Your task to perform on an android device: Search for razer kraken on bestbuy, select the first entry, and add it to the cart. Image 0: 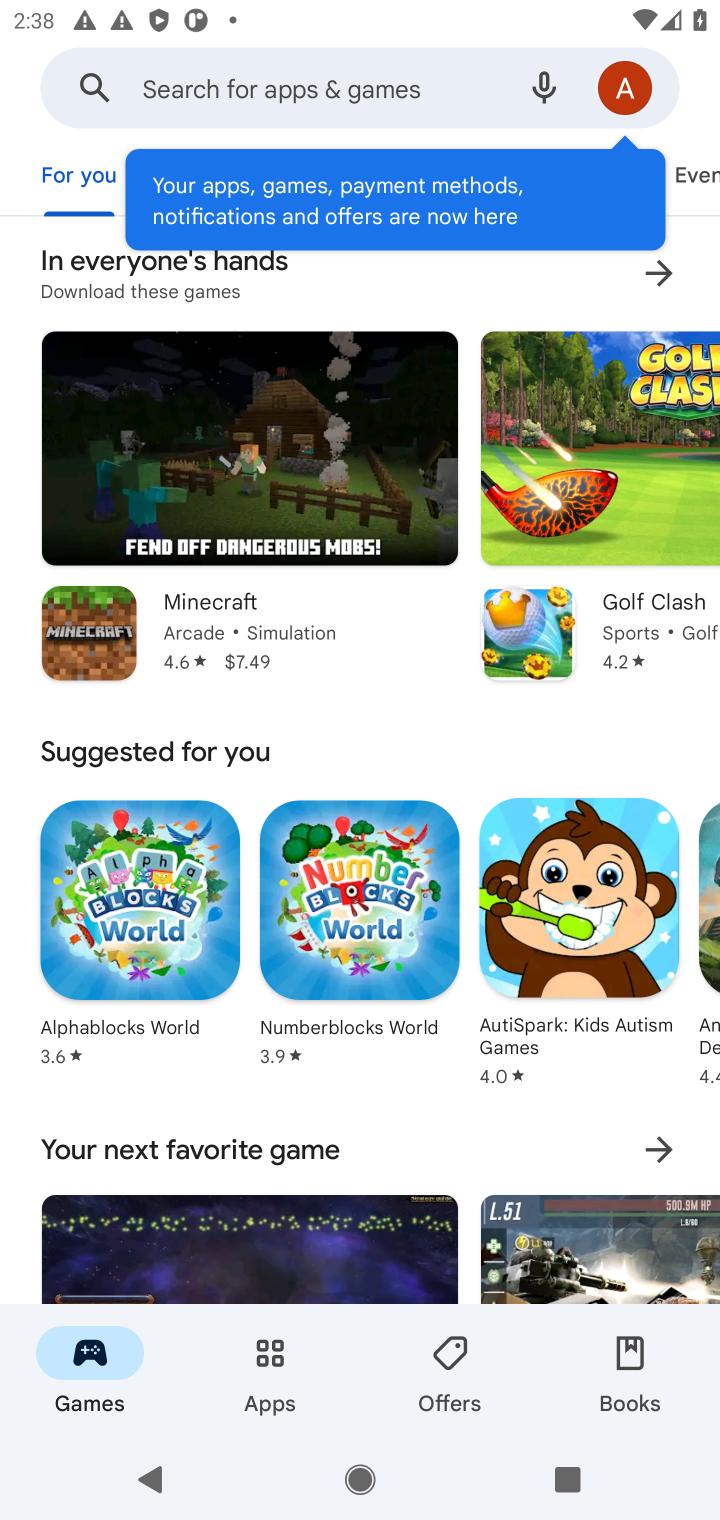
Step 0: press home button
Your task to perform on an android device: Search for razer kraken on bestbuy, select the first entry, and add it to the cart. Image 1: 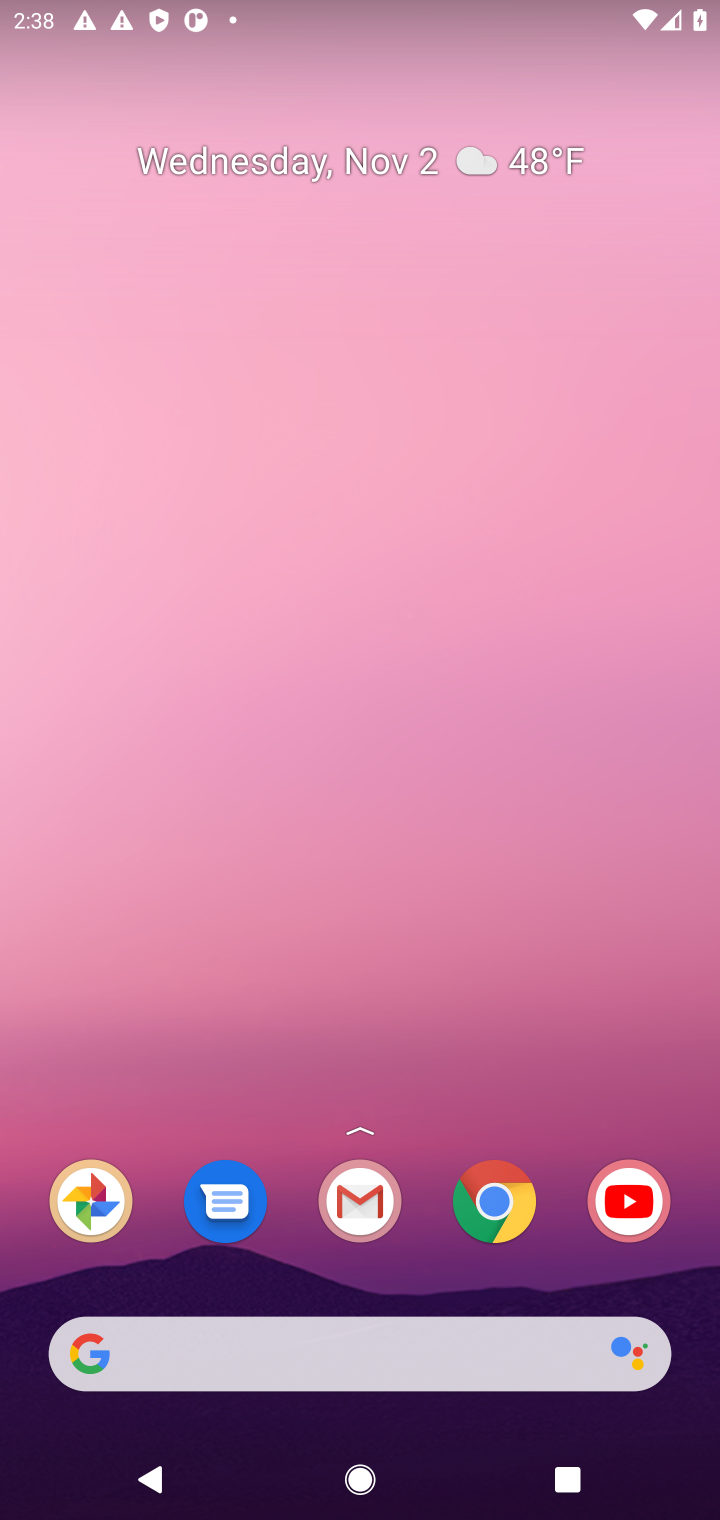
Step 1: click (507, 1191)
Your task to perform on an android device: Search for razer kraken on bestbuy, select the first entry, and add it to the cart. Image 2: 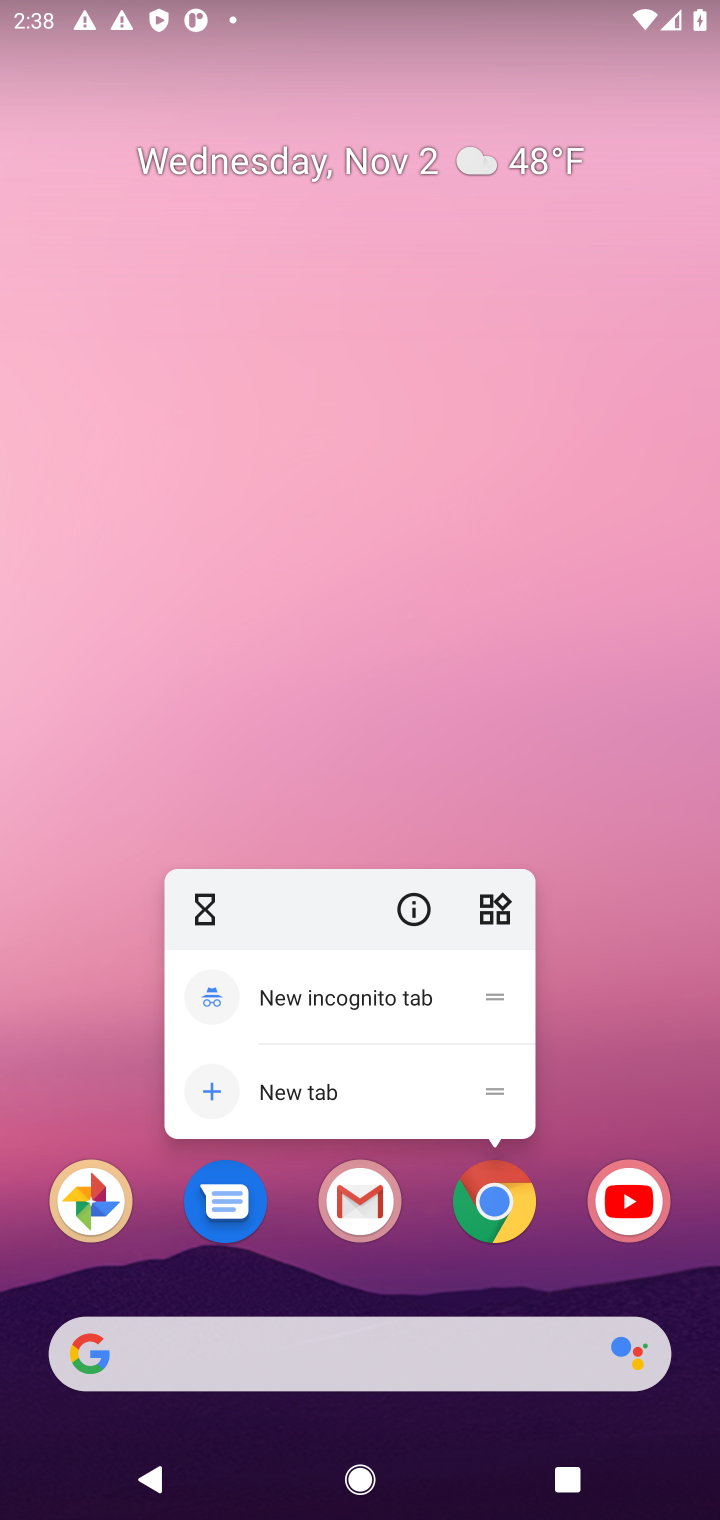
Step 2: click (509, 1189)
Your task to perform on an android device: Search for razer kraken on bestbuy, select the first entry, and add it to the cart. Image 3: 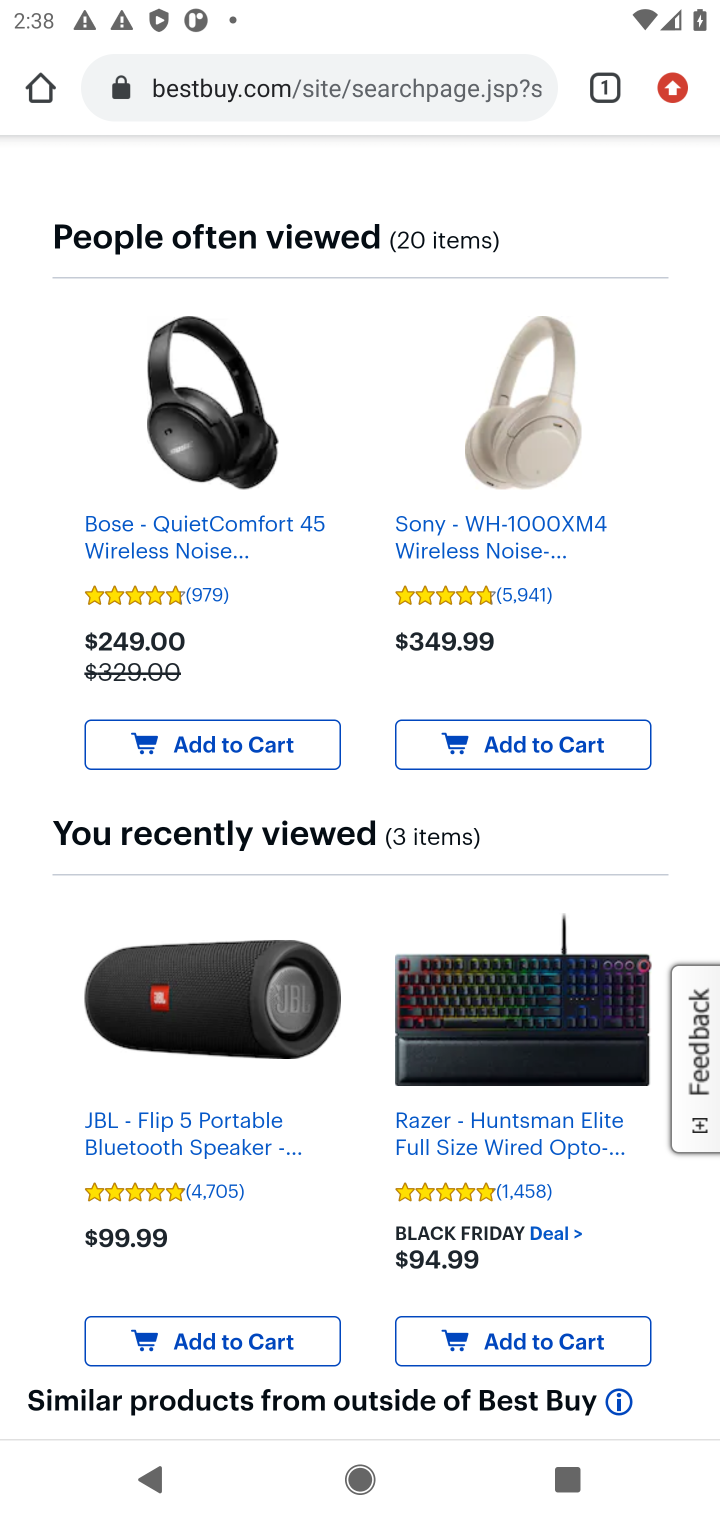
Step 3: click (466, 66)
Your task to perform on an android device: Search for razer kraken on bestbuy, select the first entry, and add it to the cart. Image 4: 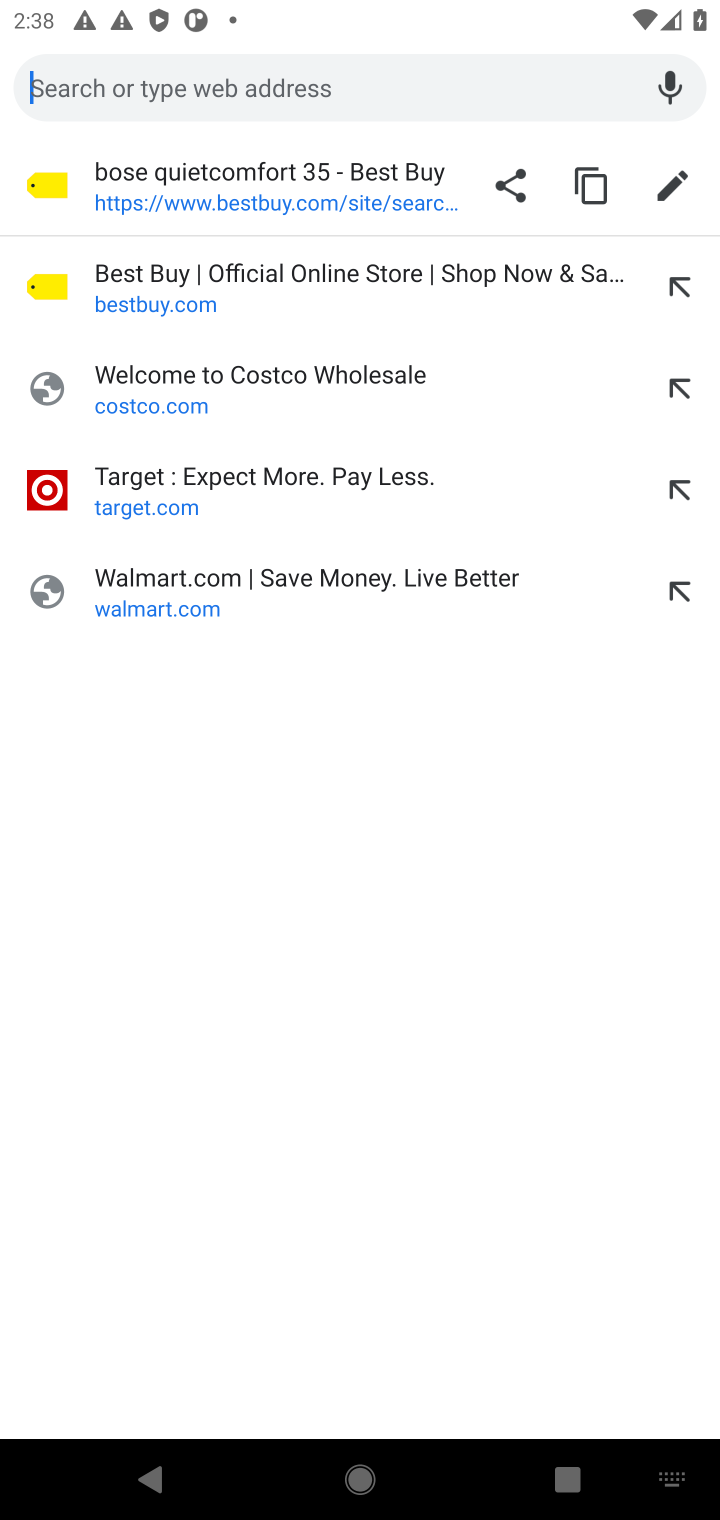
Step 4: click (216, 270)
Your task to perform on an android device: Search for razer kraken on bestbuy, select the first entry, and add it to the cart. Image 5: 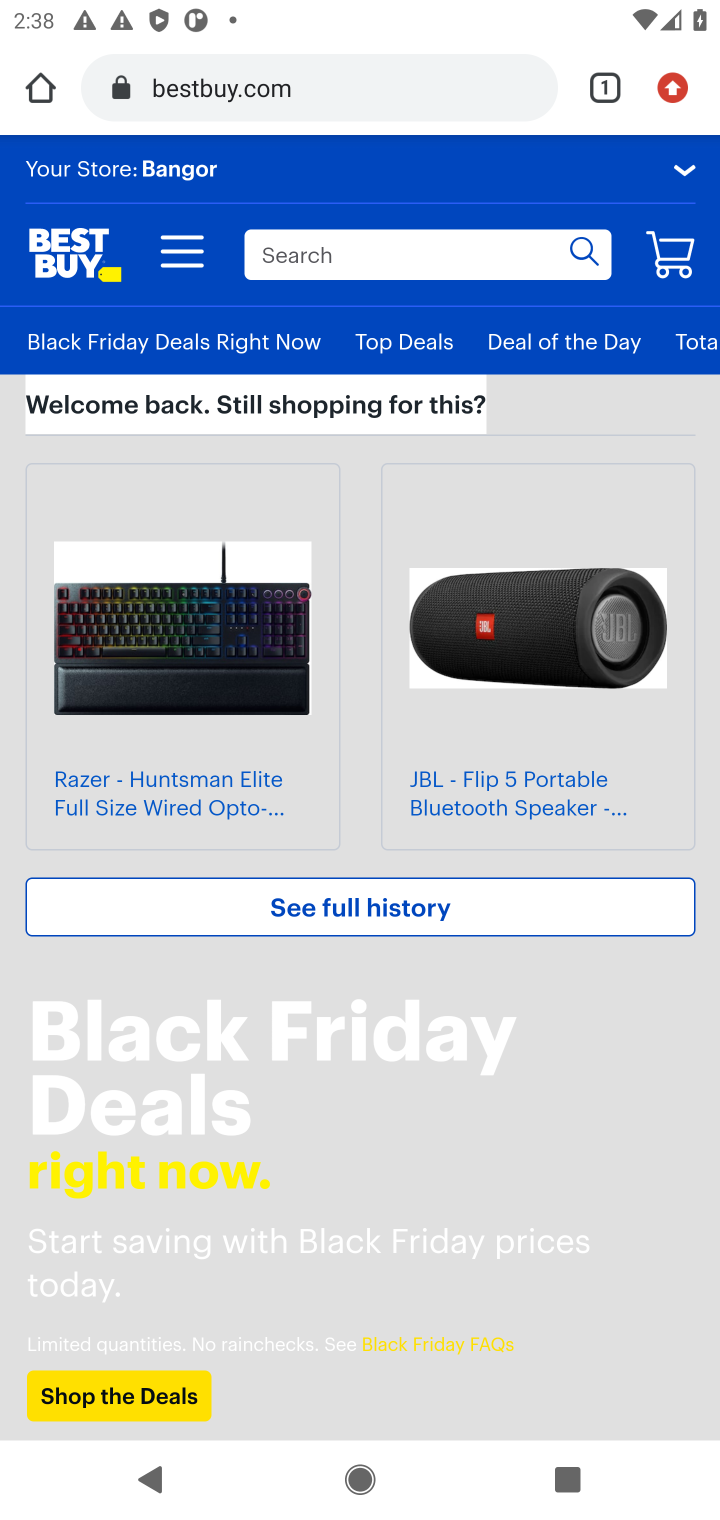
Step 5: click (462, 245)
Your task to perform on an android device: Search for razer kraken on bestbuy, select the first entry, and add it to the cart. Image 6: 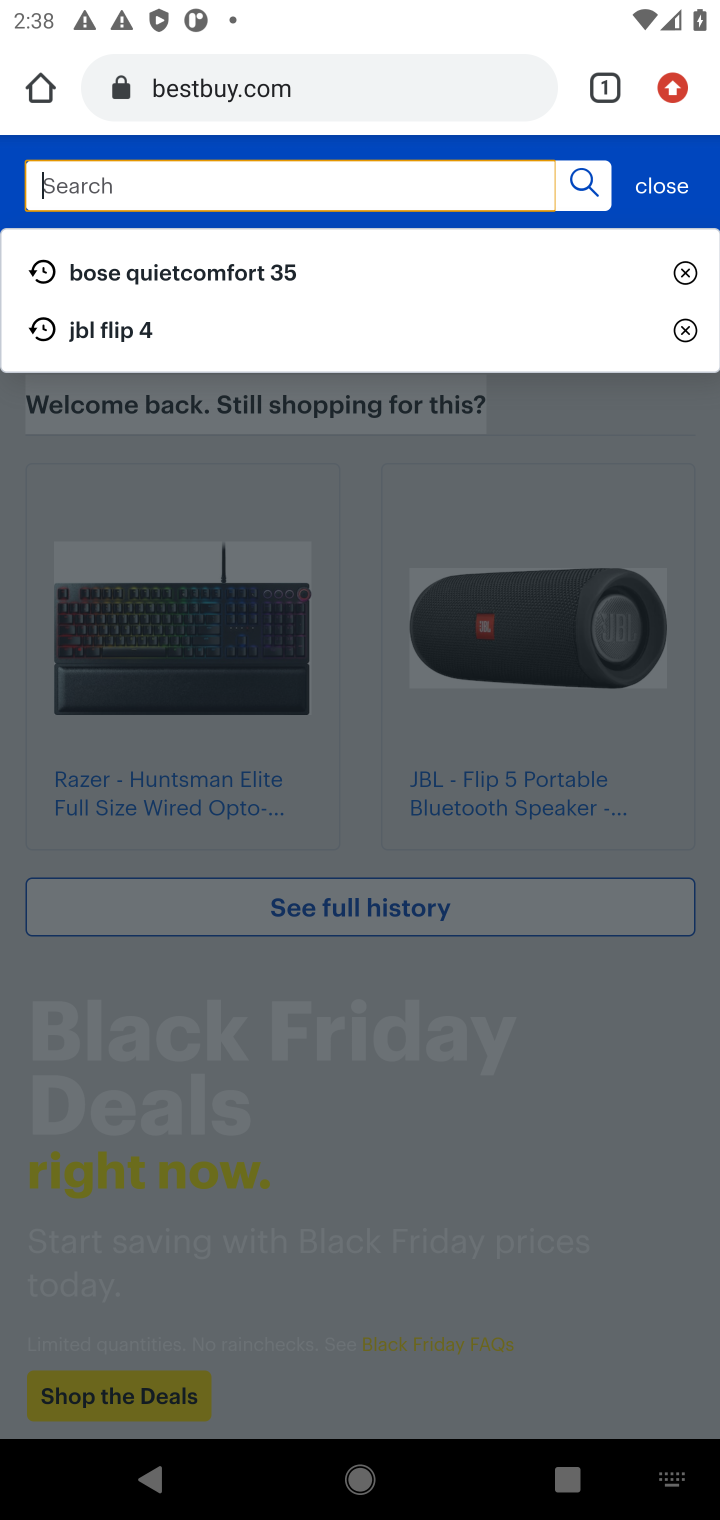
Step 6: type " razer kraken"
Your task to perform on an android device: Search for razer kraken on bestbuy, select the first entry, and add it to the cart. Image 7: 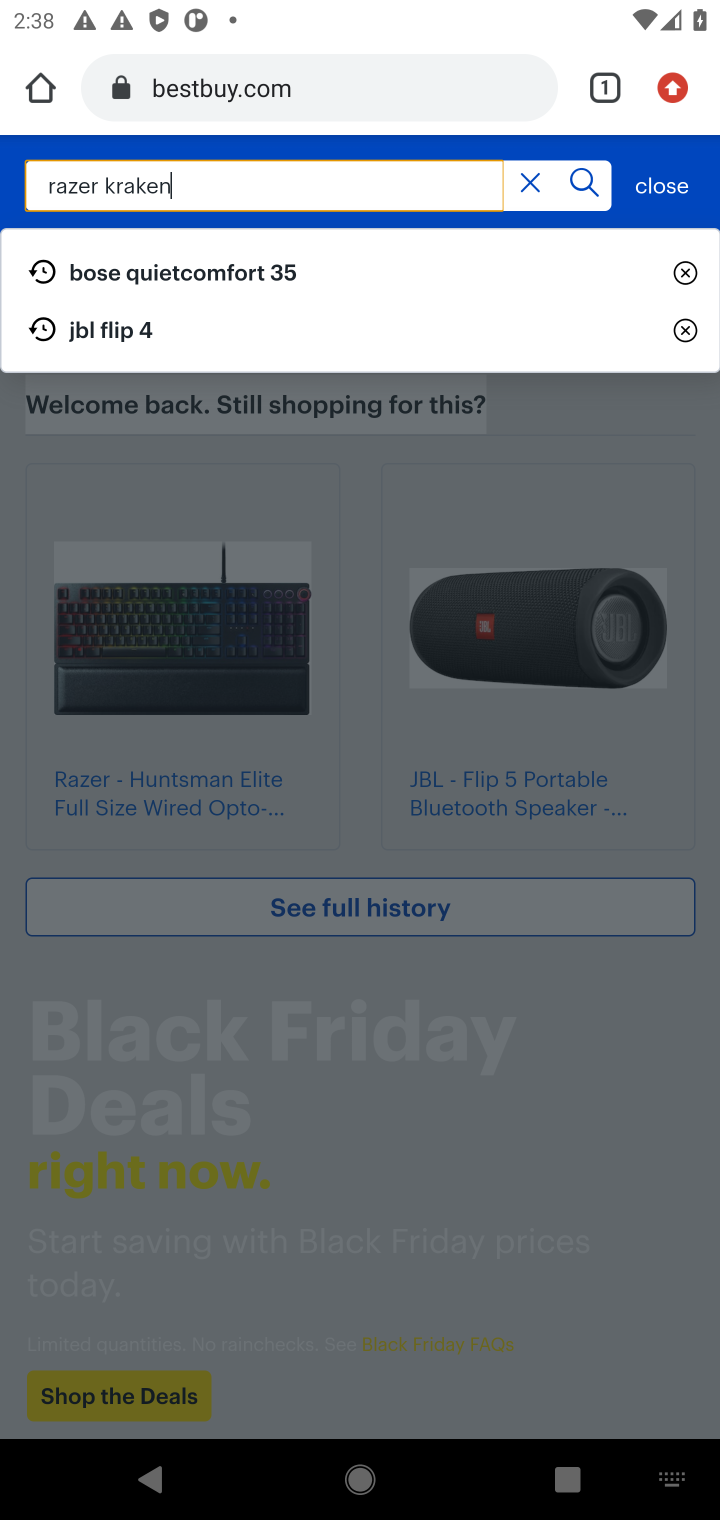
Step 7: press enter
Your task to perform on an android device: Search for razer kraken on bestbuy, select the first entry, and add it to the cart. Image 8: 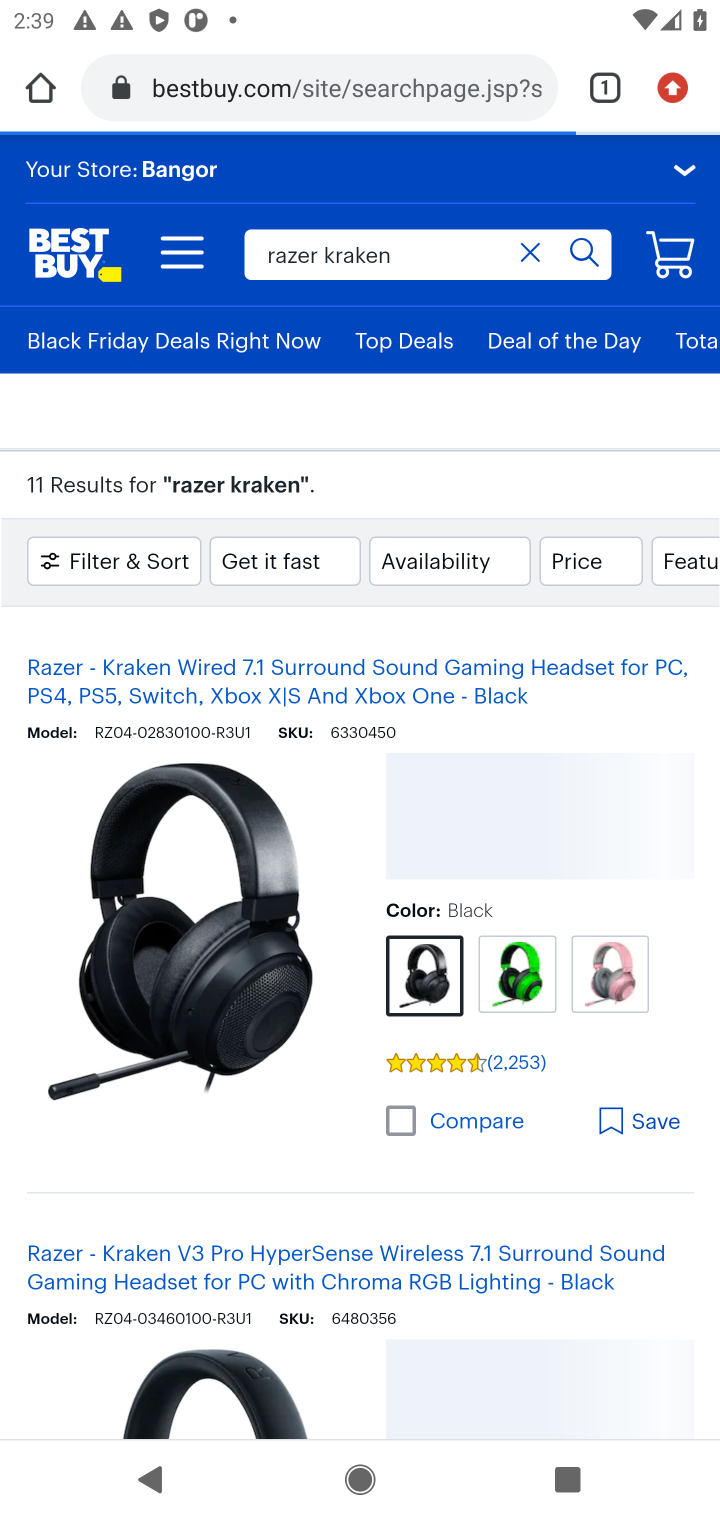
Step 8: click (202, 868)
Your task to perform on an android device: Search for razer kraken on bestbuy, select the first entry, and add it to the cart. Image 9: 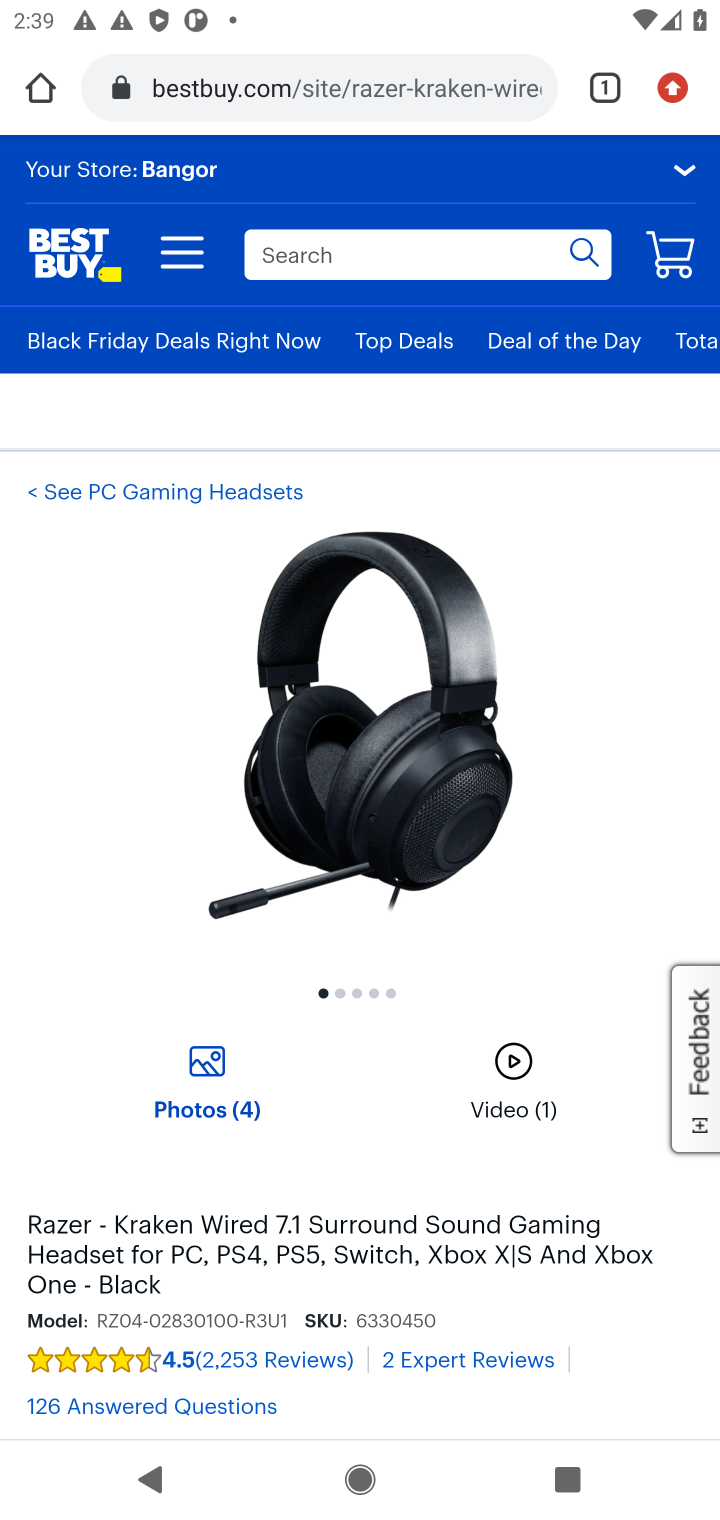
Step 9: drag from (546, 1140) to (569, 818)
Your task to perform on an android device: Search for razer kraken on bestbuy, select the first entry, and add it to the cart. Image 10: 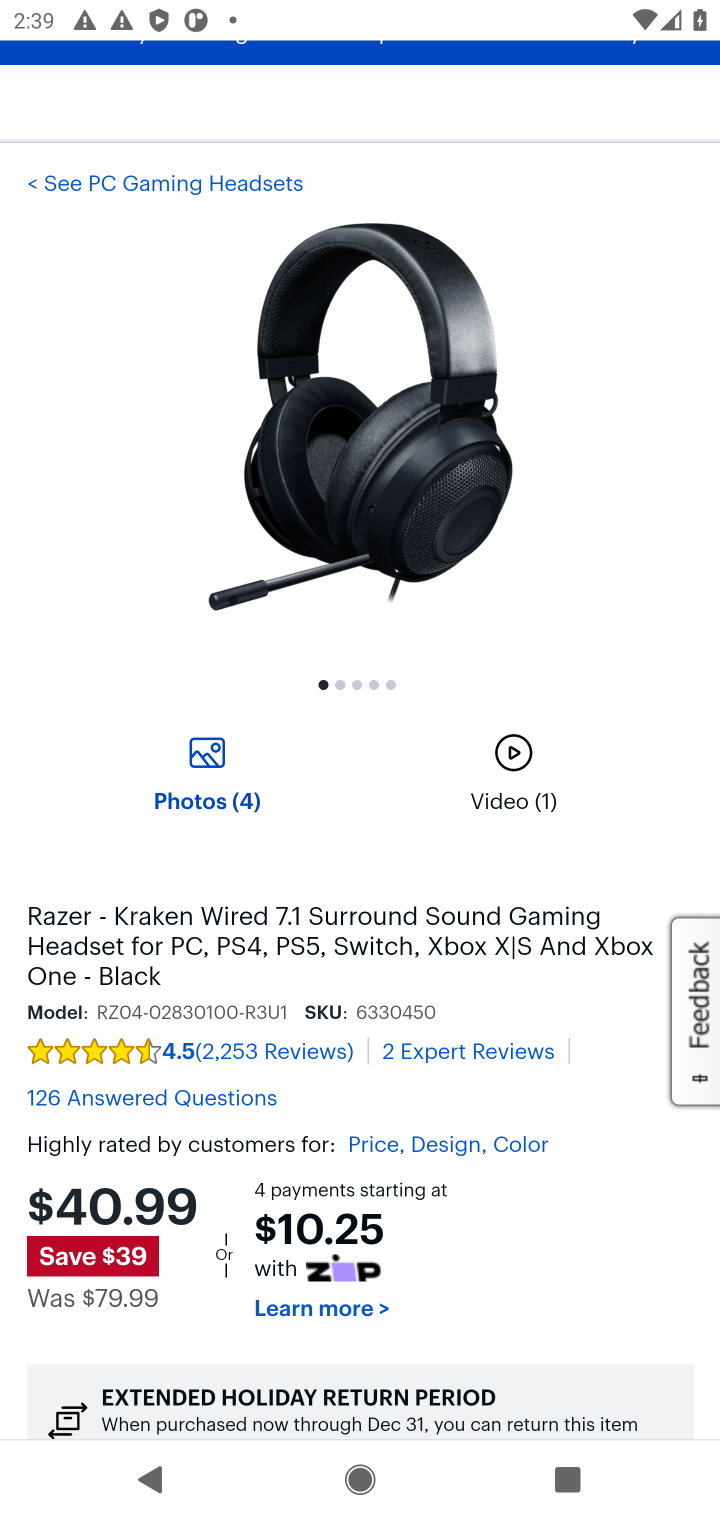
Step 10: drag from (523, 1254) to (528, 702)
Your task to perform on an android device: Search for razer kraken on bestbuy, select the first entry, and add it to the cart. Image 11: 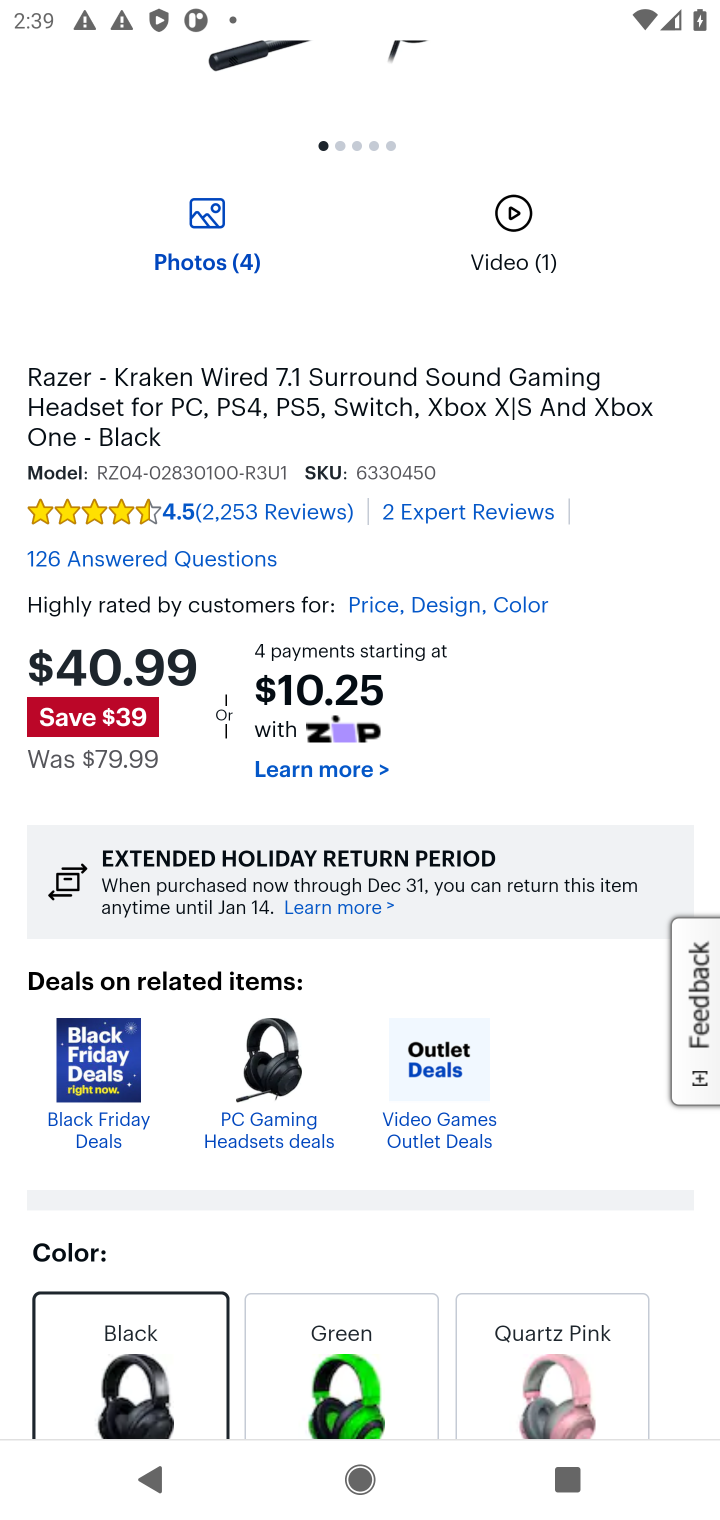
Step 11: drag from (464, 1256) to (441, 481)
Your task to perform on an android device: Search for razer kraken on bestbuy, select the first entry, and add it to the cart. Image 12: 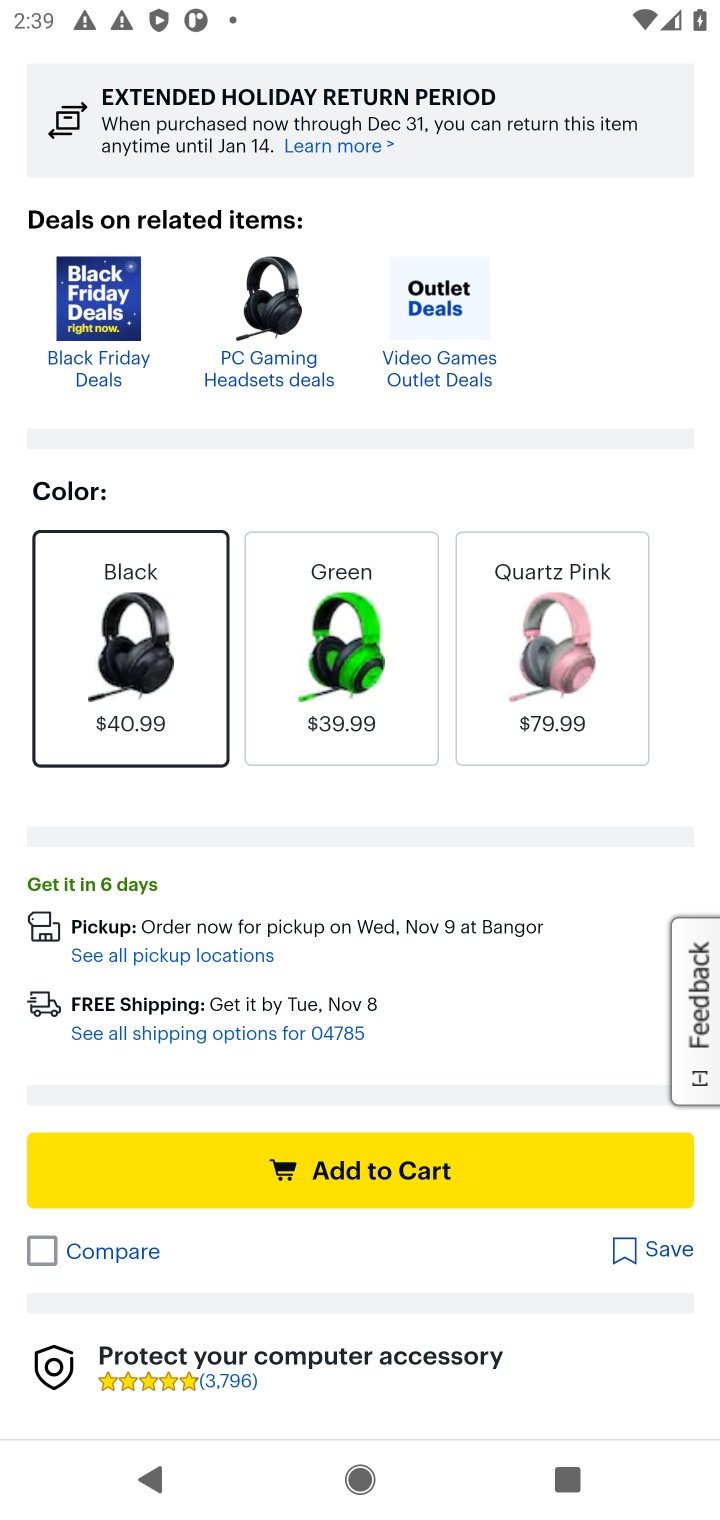
Step 12: click (412, 1159)
Your task to perform on an android device: Search for razer kraken on bestbuy, select the first entry, and add it to the cart. Image 13: 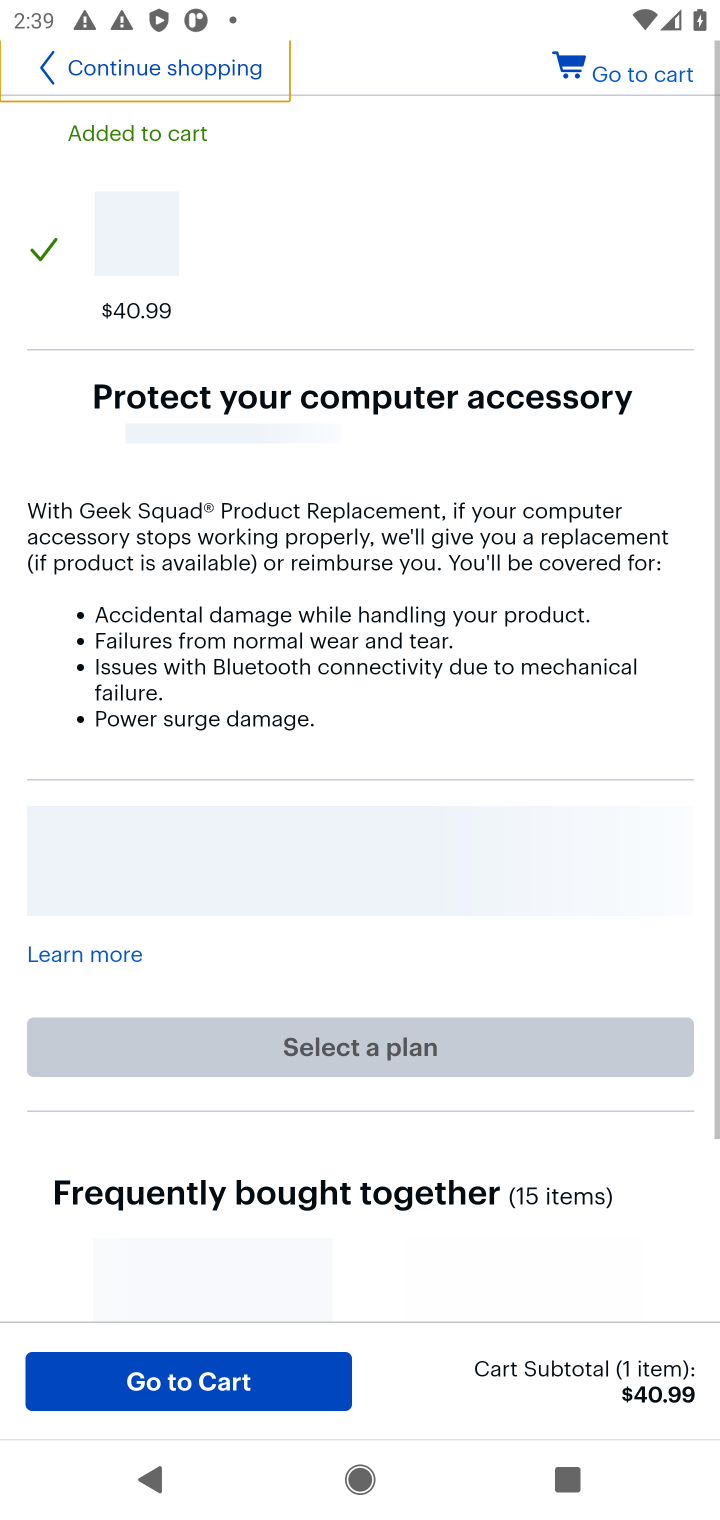
Step 13: task complete